Your task to perform on an android device: turn off javascript in the chrome app Image 0: 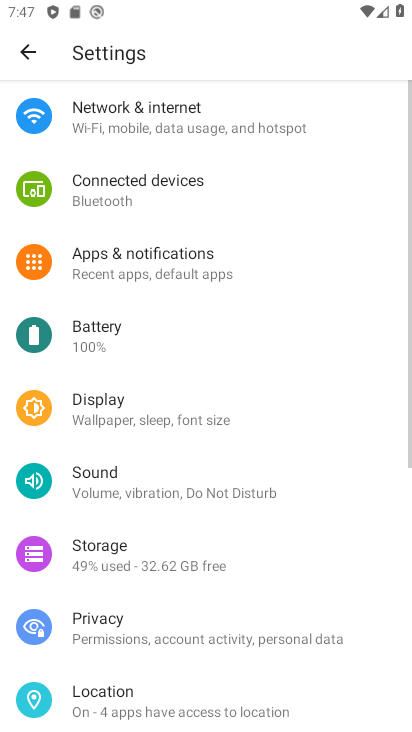
Step 0: press home button
Your task to perform on an android device: turn off javascript in the chrome app Image 1: 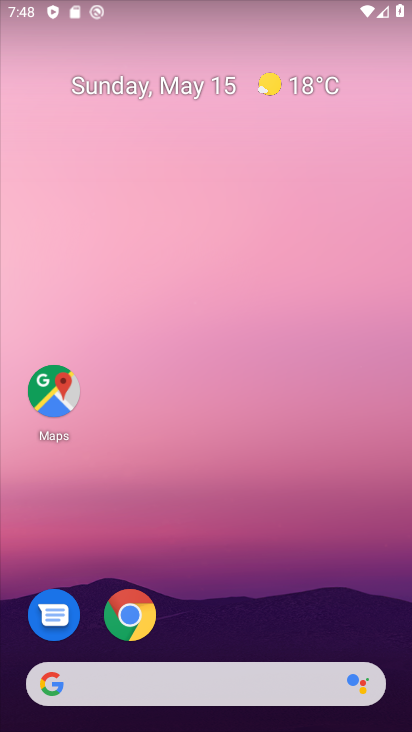
Step 1: click (128, 607)
Your task to perform on an android device: turn off javascript in the chrome app Image 2: 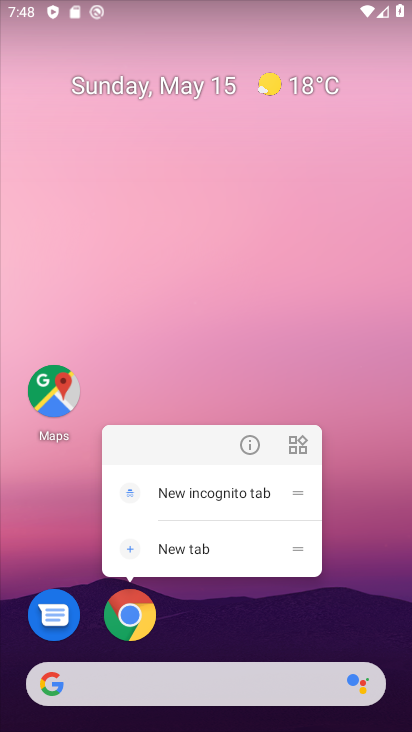
Step 2: click (130, 618)
Your task to perform on an android device: turn off javascript in the chrome app Image 3: 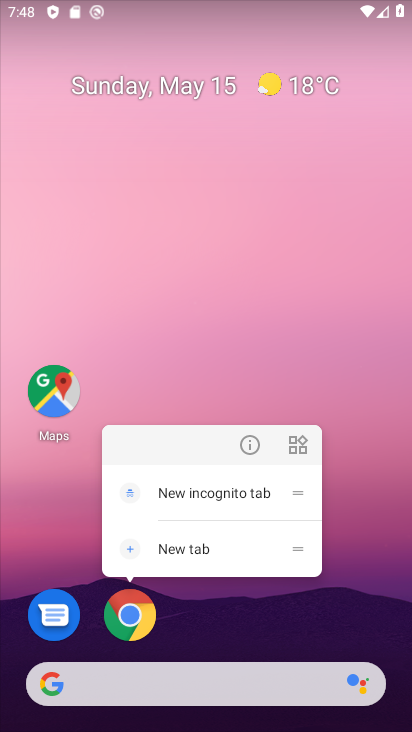
Step 3: click (142, 601)
Your task to perform on an android device: turn off javascript in the chrome app Image 4: 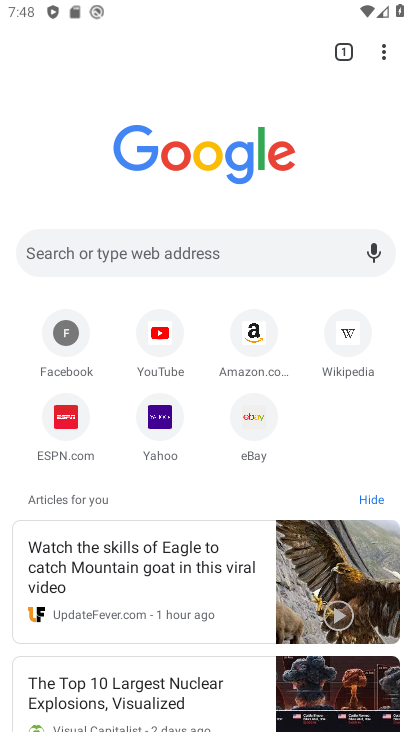
Step 4: click (386, 48)
Your task to perform on an android device: turn off javascript in the chrome app Image 5: 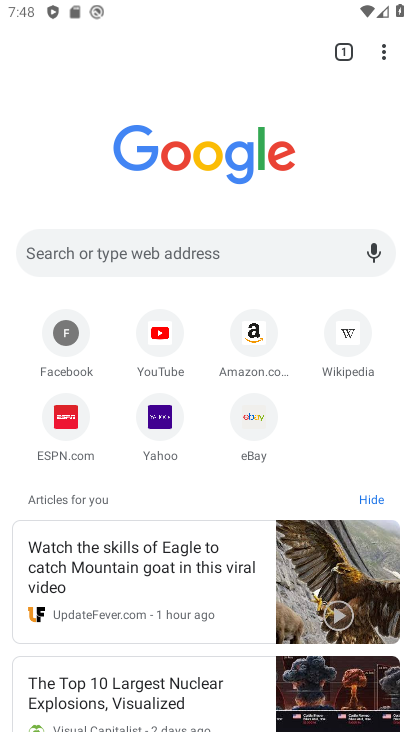
Step 5: click (383, 58)
Your task to perform on an android device: turn off javascript in the chrome app Image 6: 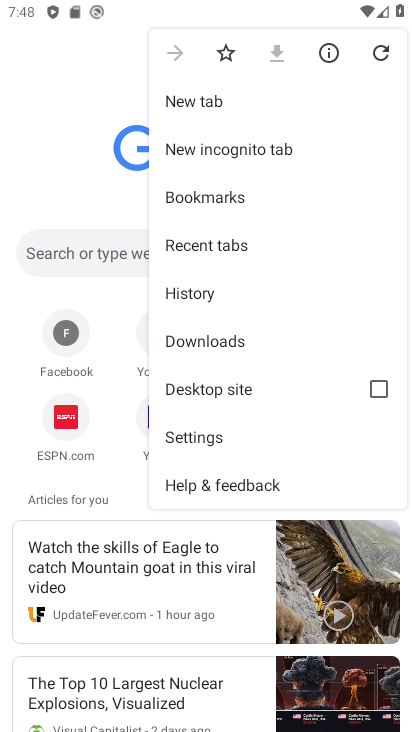
Step 6: click (206, 434)
Your task to perform on an android device: turn off javascript in the chrome app Image 7: 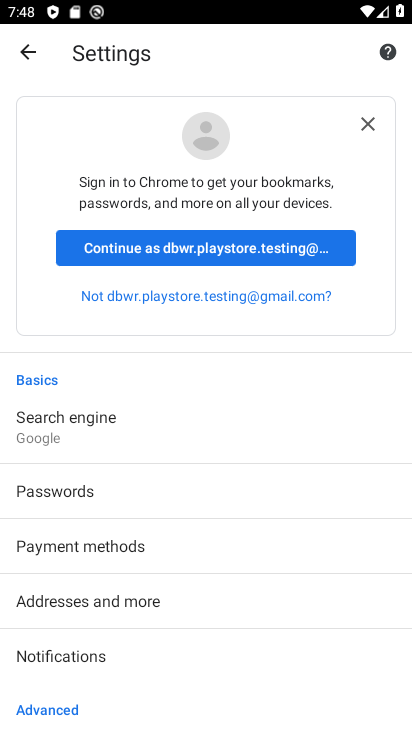
Step 7: drag from (63, 710) to (112, 504)
Your task to perform on an android device: turn off javascript in the chrome app Image 8: 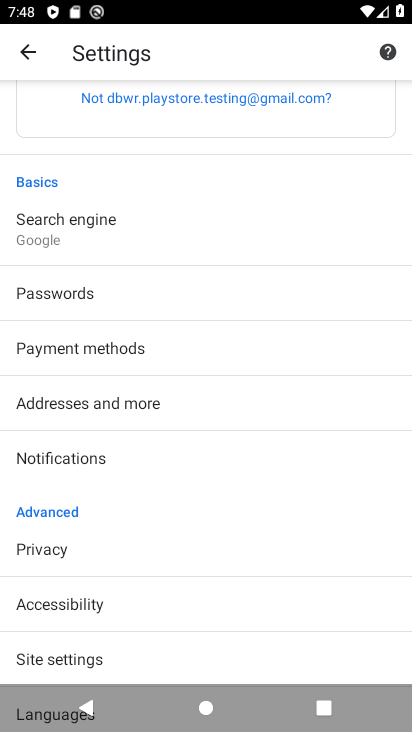
Step 8: click (57, 553)
Your task to perform on an android device: turn off javascript in the chrome app Image 9: 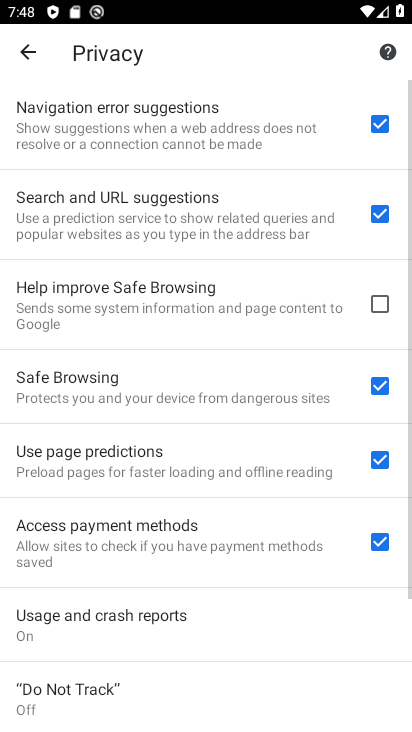
Step 9: press back button
Your task to perform on an android device: turn off javascript in the chrome app Image 10: 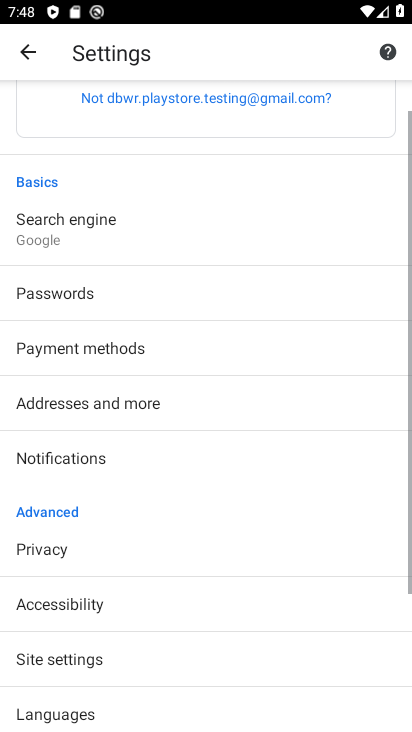
Step 10: click (52, 664)
Your task to perform on an android device: turn off javascript in the chrome app Image 11: 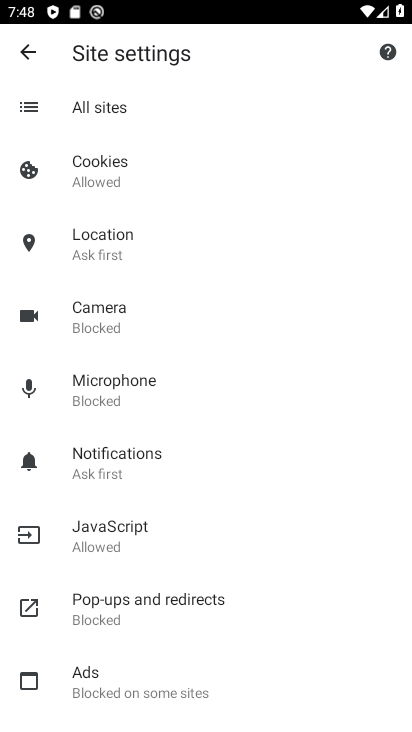
Step 11: click (111, 517)
Your task to perform on an android device: turn off javascript in the chrome app Image 12: 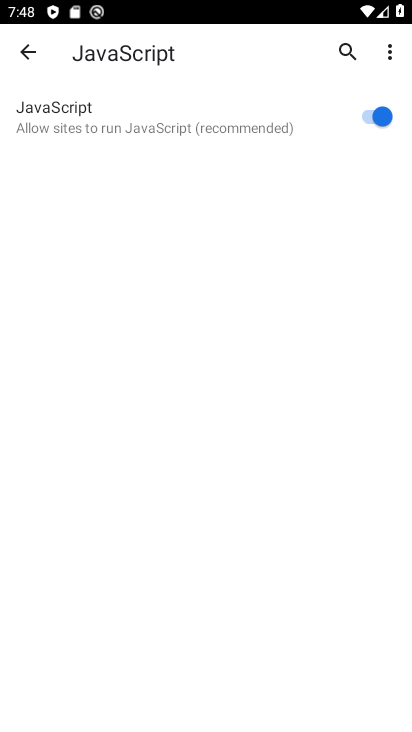
Step 12: click (380, 114)
Your task to perform on an android device: turn off javascript in the chrome app Image 13: 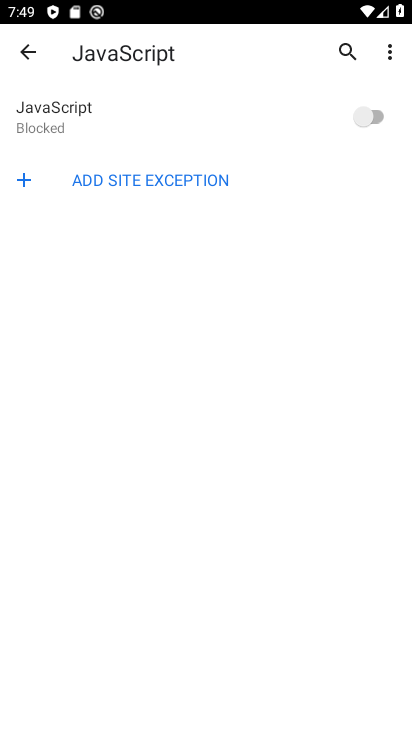
Step 13: task complete